Your task to perform on an android device: turn off location history Image 0: 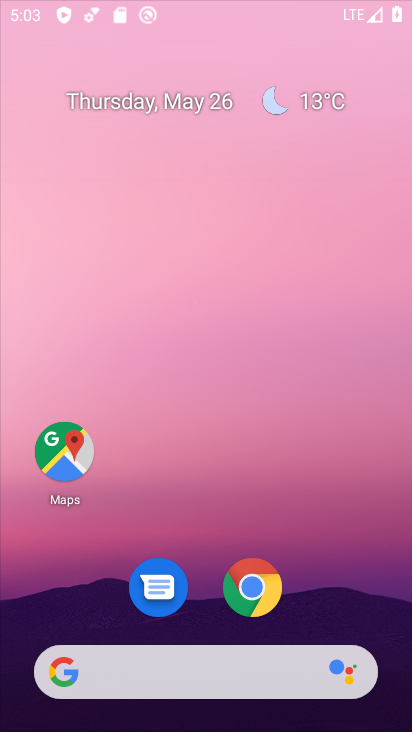
Step 0: click (197, 145)
Your task to perform on an android device: turn off location history Image 1: 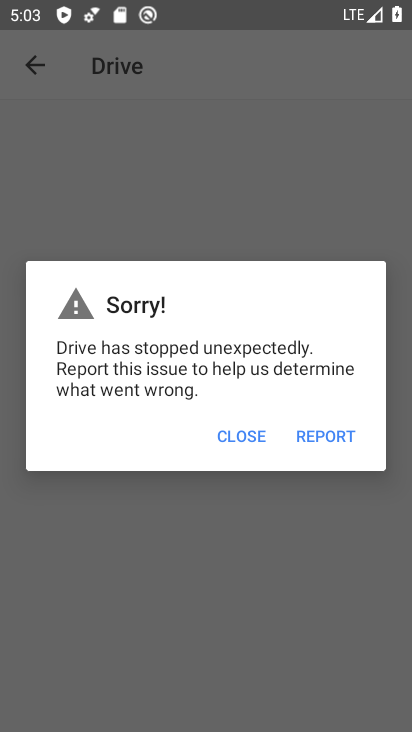
Step 1: press home button
Your task to perform on an android device: turn off location history Image 2: 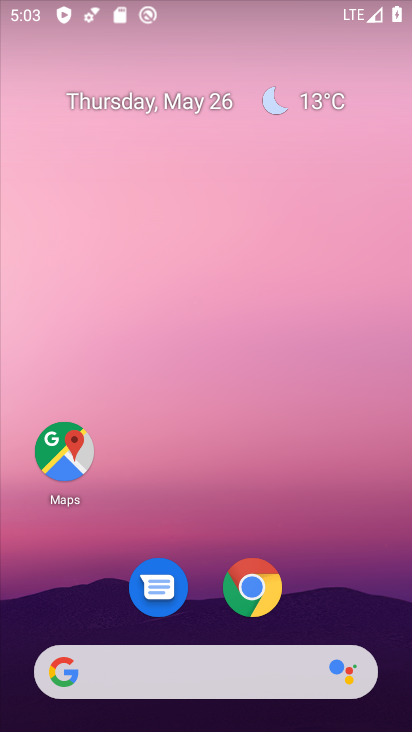
Step 2: drag from (219, 438) to (219, 57)
Your task to perform on an android device: turn off location history Image 3: 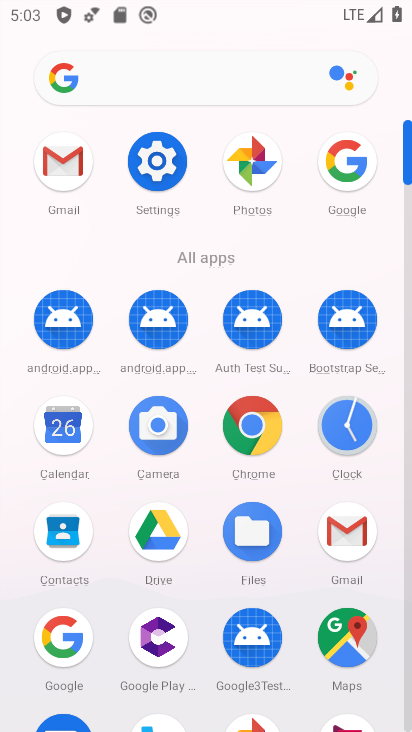
Step 3: click (154, 154)
Your task to perform on an android device: turn off location history Image 4: 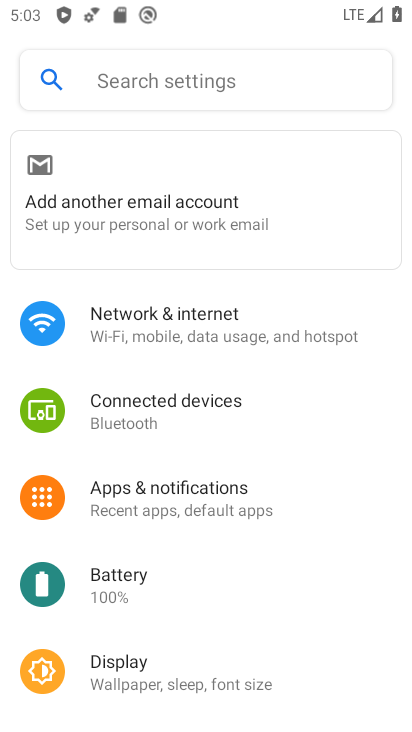
Step 4: drag from (180, 657) to (182, 270)
Your task to perform on an android device: turn off location history Image 5: 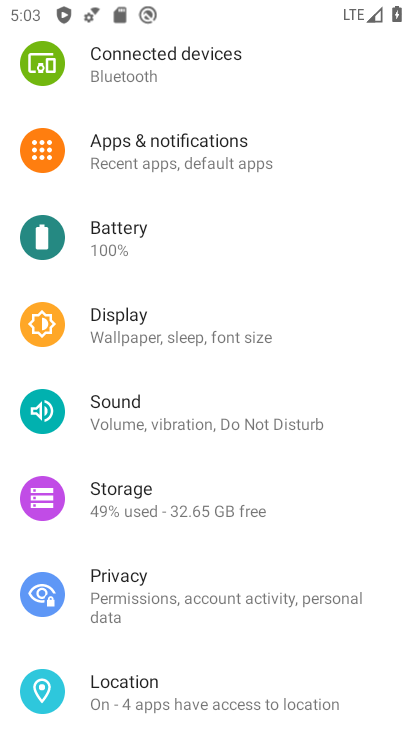
Step 5: click (147, 678)
Your task to perform on an android device: turn off location history Image 6: 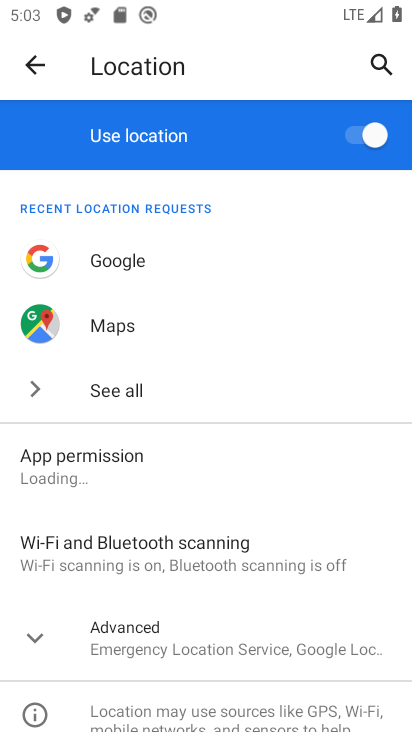
Step 6: click (132, 644)
Your task to perform on an android device: turn off location history Image 7: 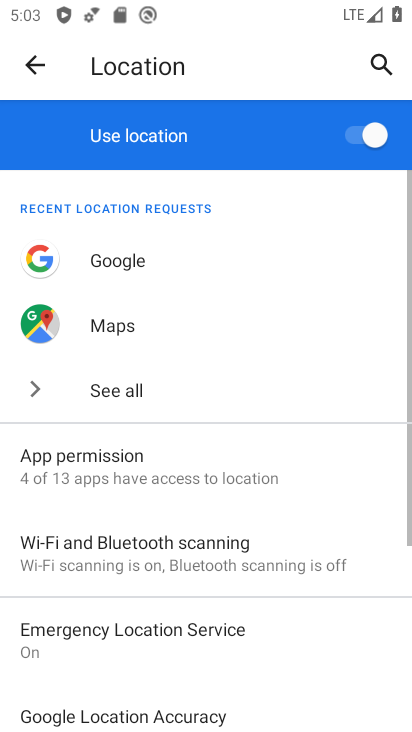
Step 7: drag from (200, 698) to (215, 382)
Your task to perform on an android device: turn off location history Image 8: 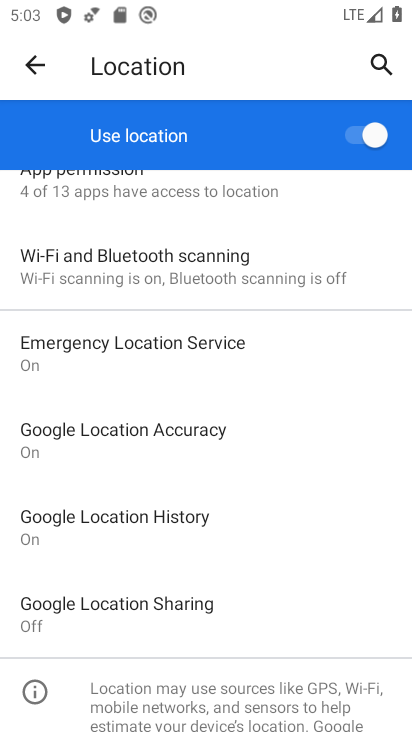
Step 8: click (151, 512)
Your task to perform on an android device: turn off location history Image 9: 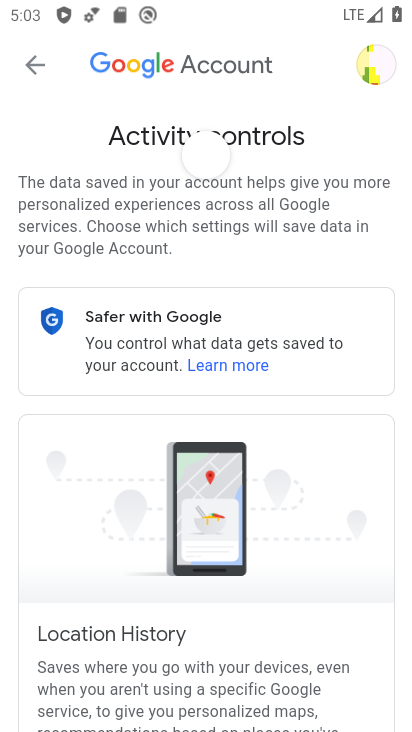
Step 9: drag from (210, 690) to (216, 317)
Your task to perform on an android device: turn off location history Image 10: 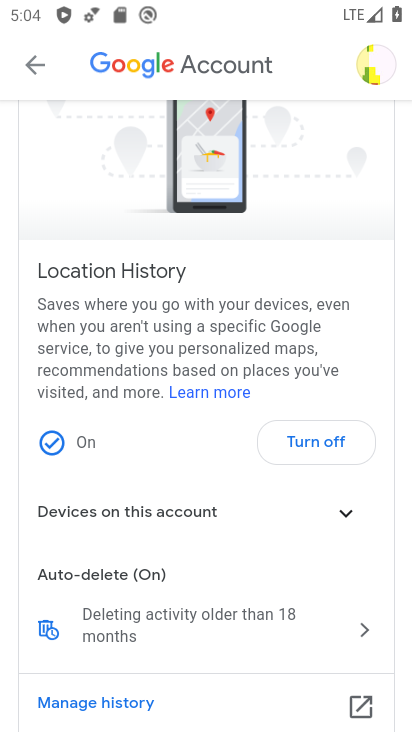
Step 10: click (325, 446)
Your task to perform on an android device: turn off location history Image 11: 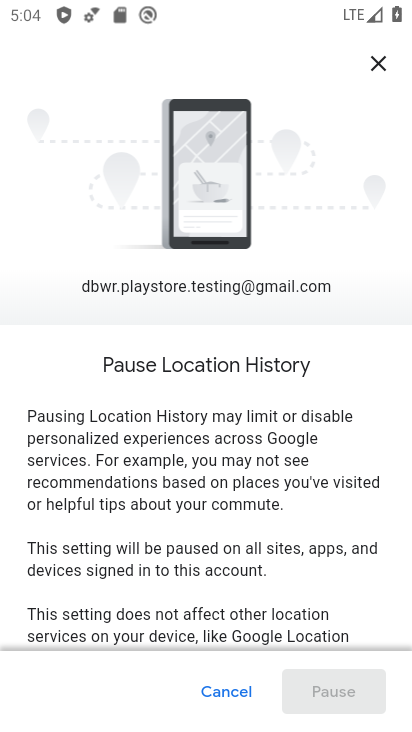
Step 11: drag from (200, 623) to (196, 208)
Your task to perform on an android device: turn off location history Image 12: 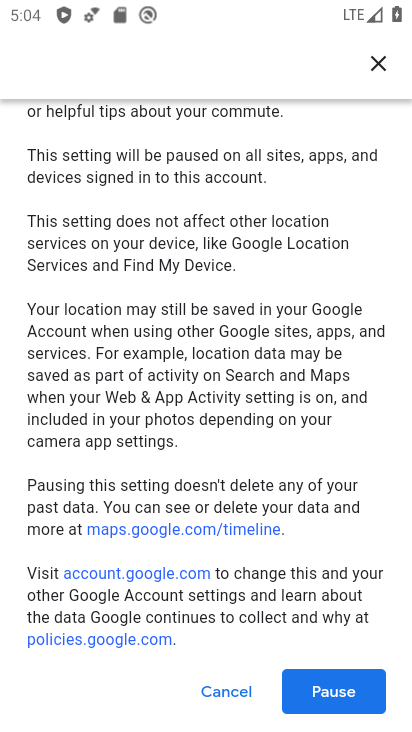
Step 12: click (342, 696)
Your task to perform on an android device: turn off location history Image 13: 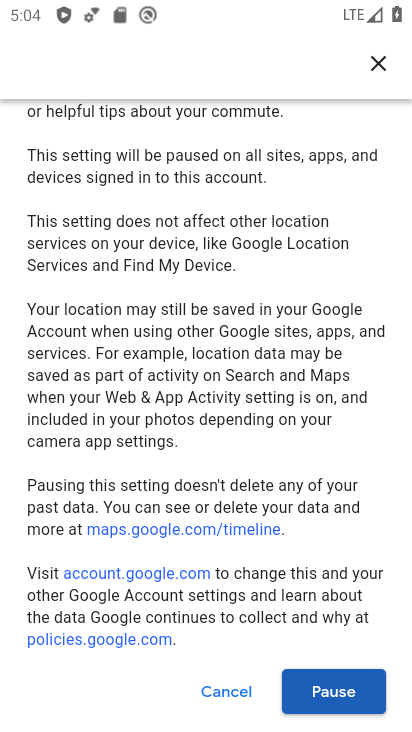
Step 13: click (342, 698)
Your task to perform on an android device: turn off location history Image 14: 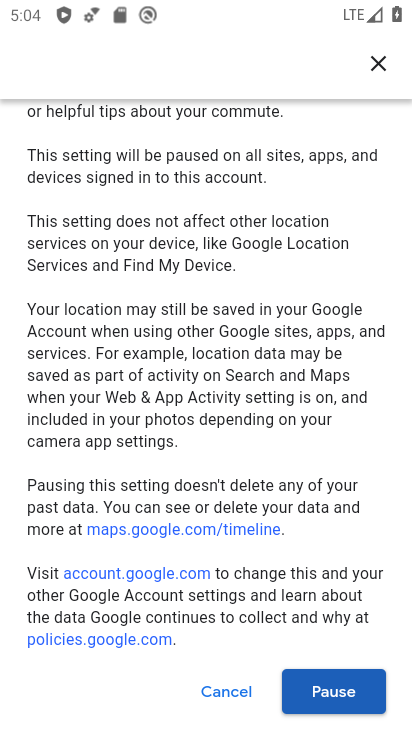
Step 14: click (341, 697)
Your task to perform on an android device: turn off location history Image 15: 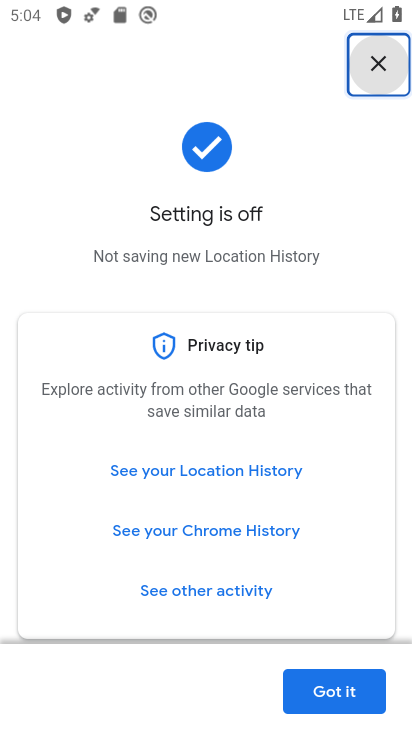
Step 15: task complete